Your task to perform on an android device: turn off location Image 0: 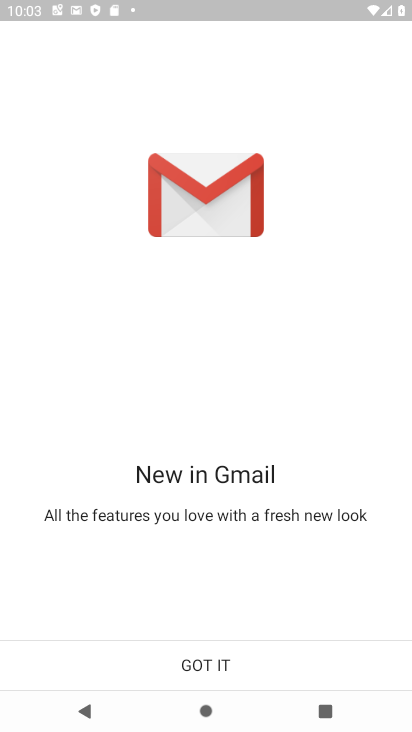
Step 0: press back button
Your task to perform on an android device: turn off location Image 1: 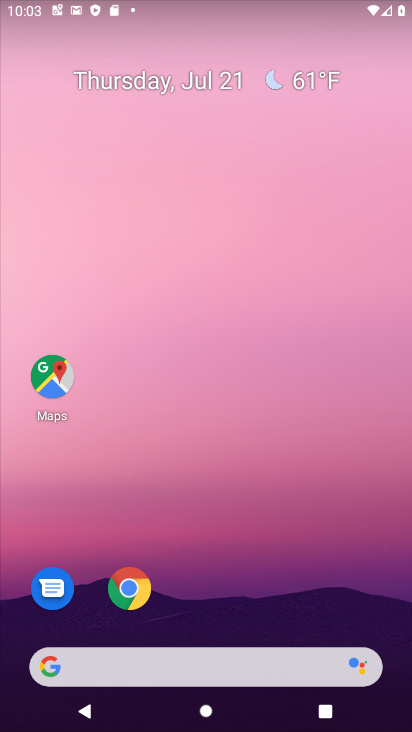
Step 1: drag from (223, 613) to (298, 12)
Your task to perform on an android device: turn off location Image 2: 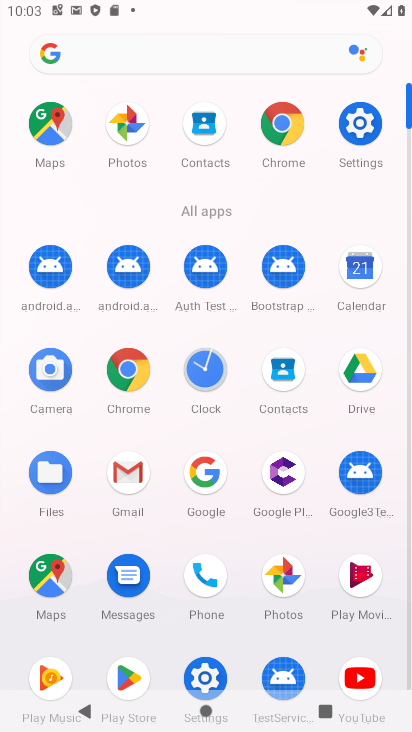
Step 2: click (370, 113)
Your task to perform on an android device: turn off location Image 3: 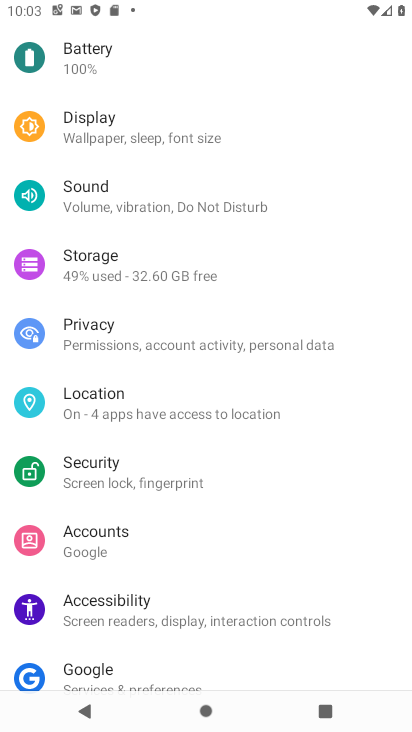
Step 3: click (76, 398)
Your task to perform on an android device: turn off location Image 4: 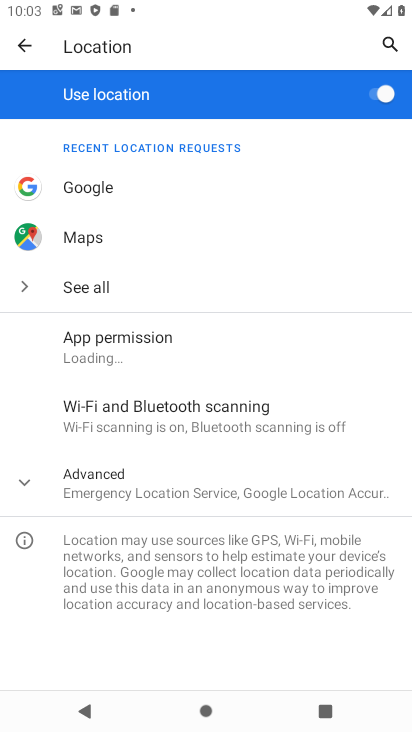
Step 4: click (383, 94)
Your task to perform on an android device: turn off location Image 5: 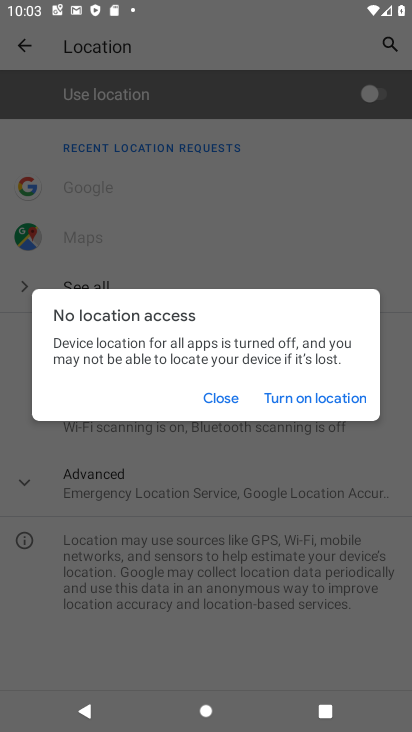
Step 5: task complete